Your task to perform on an android device: Open display settings Image 0: 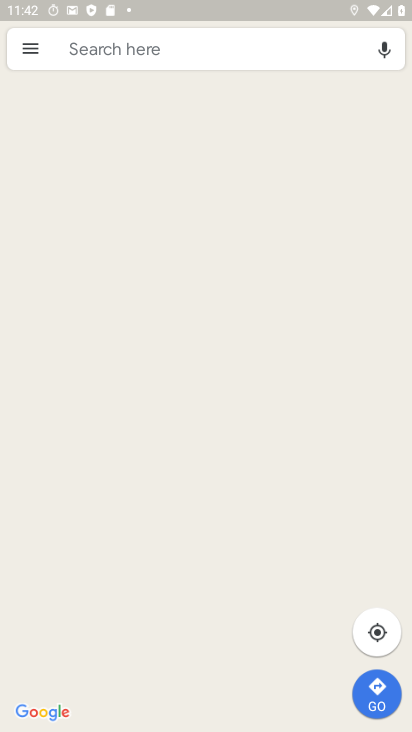
Step 0: press home button
Your task to perform on an android device: Open display settings Image 1: 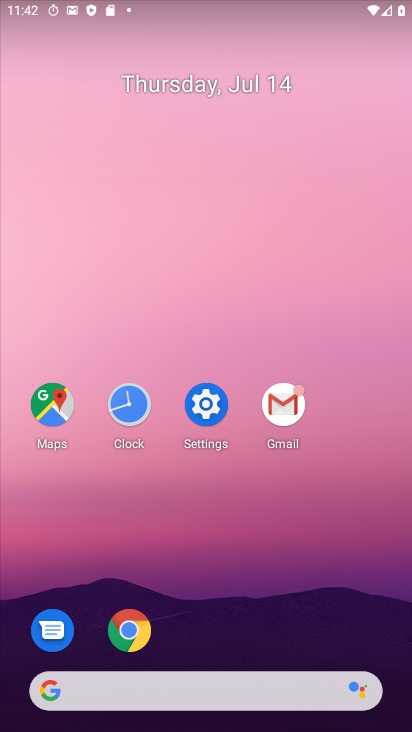
Step 1: drag from (371, 574) to (327, 52)
Your task to perform on an android device: Open display settings Image 2: 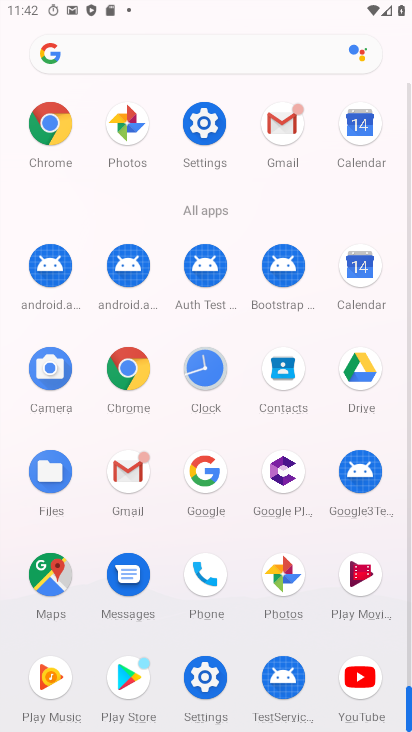
Step 2: click (207, 113)
Your task to perform on an android device: Open display settings Image 3: 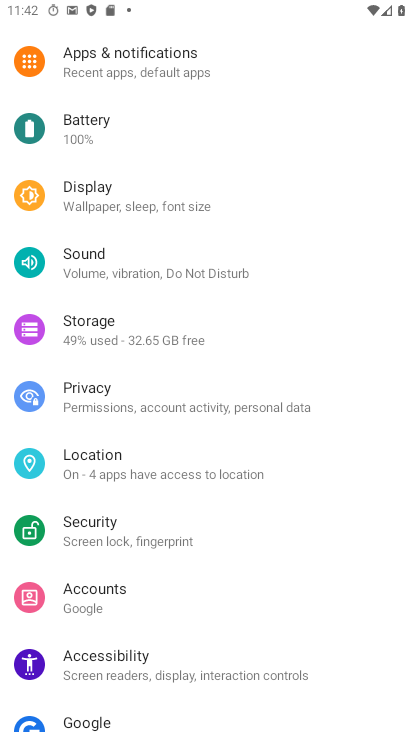
Step 3: click (107, 199)
Your task to perform on an android device: Open display settings Image 4: 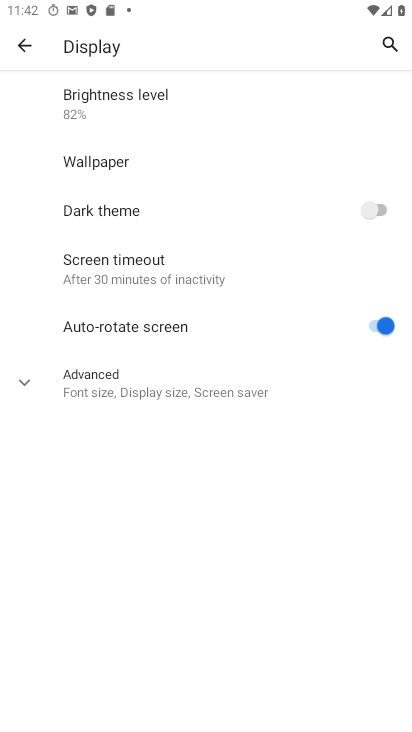
Step 4: click (27, 389)
Your task to perform on an android device: Open display settings Image 5: 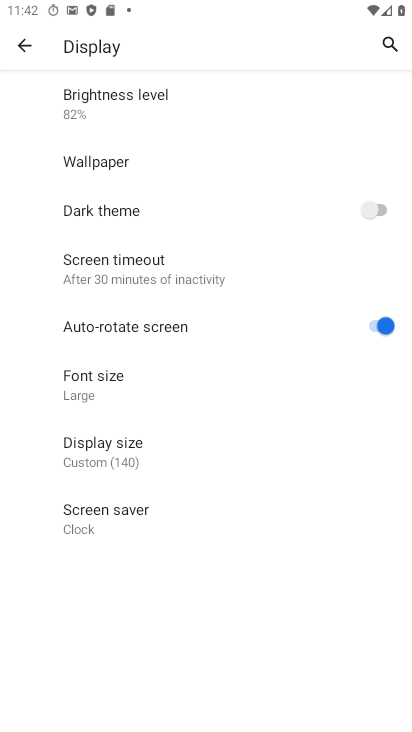
Step 5: task complete